Your task to perform on an android device: Open the web browser Image 0: 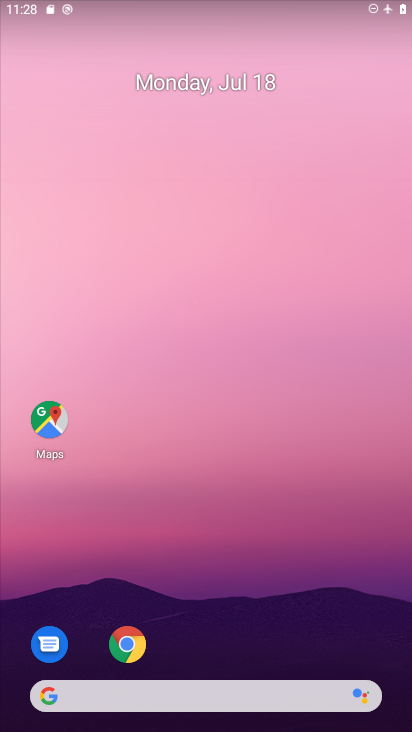
Step 0: click (247, 691)
Your task to perform on an android device: Open the web browser Image 1: 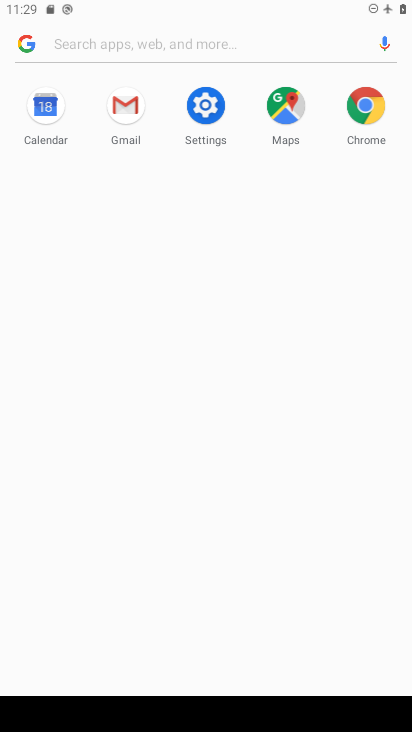
Step 1: task complete